Your task to perform on an android device: What's on my calendar tomorrow? Image 0: 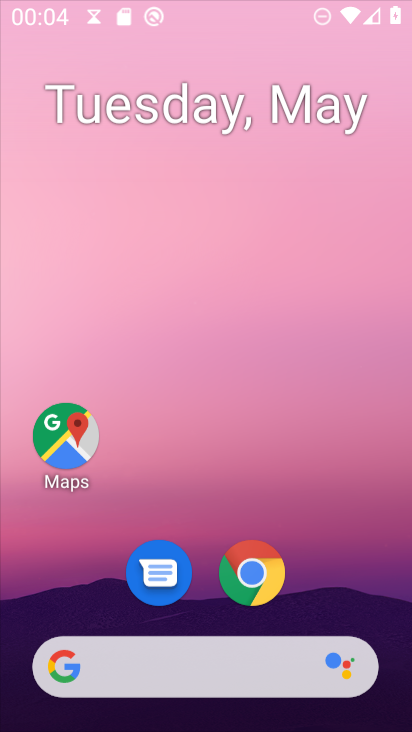
Step 0: click (223, 78)
Your task to perform on an android device: What's on my calendar tomorrow? Image 1: 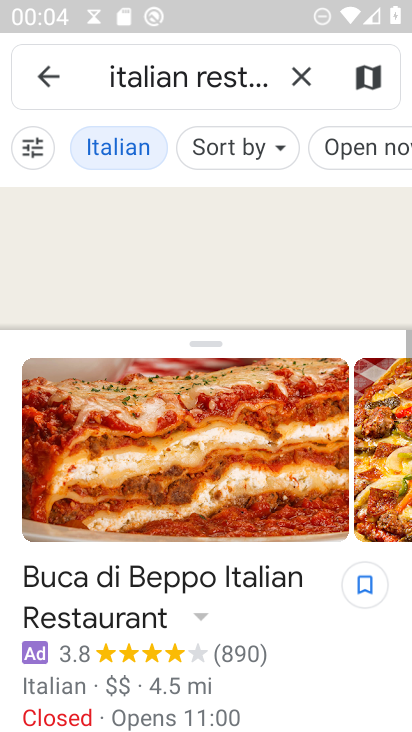
Step 1: press home button
Your task to perform on an android device: What's on my calendar tomorrow? Image 2: 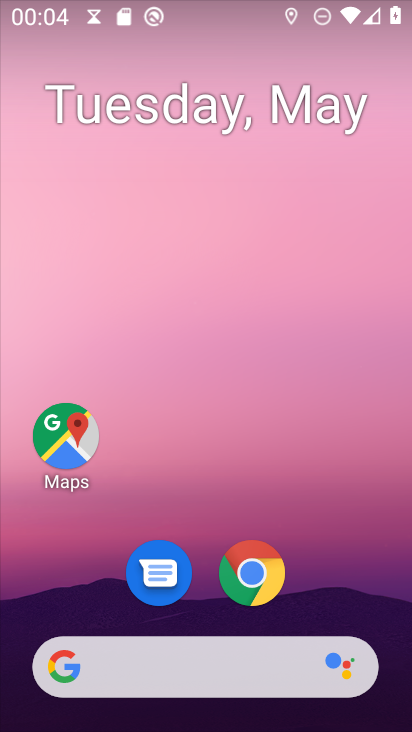
Step 2: drag from (334, 499) to (240, 11)
Your task to perform on an android device: What's on my calendar tomorrow? Image 3: 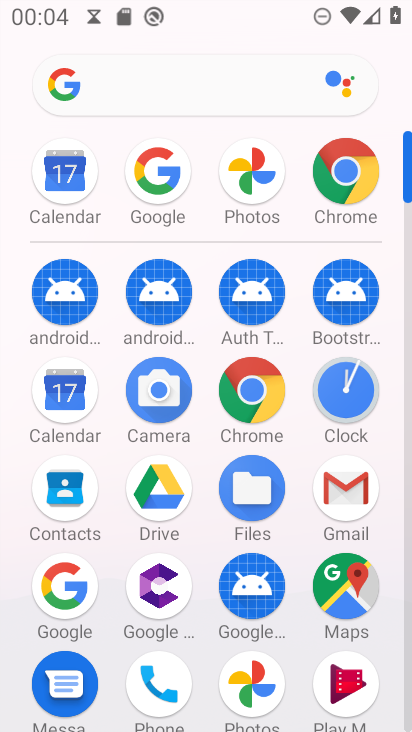
Step 3: click (62, 388)
Your task to perform on an android device: What's on my calendar tomorrow? Image 4: 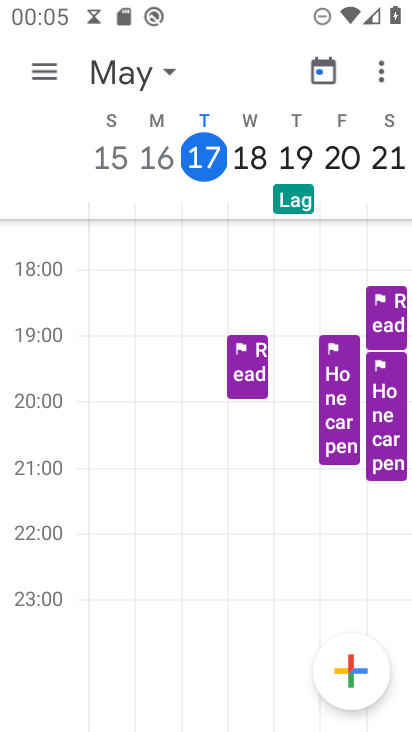
Step 4: task complete